Your task to perform on an android device: turn off smart reply in the gmail app Image 0: 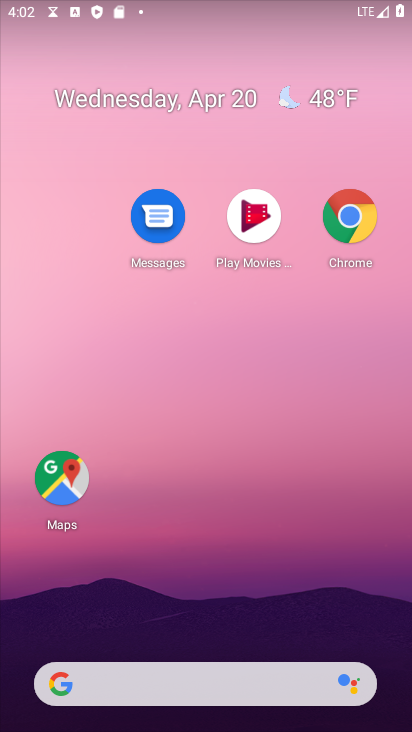
Step 0: drag from (302, 441) to (275, 248)
Your task to perform on an android device: turn off smart reply in the gmail app Image 1: 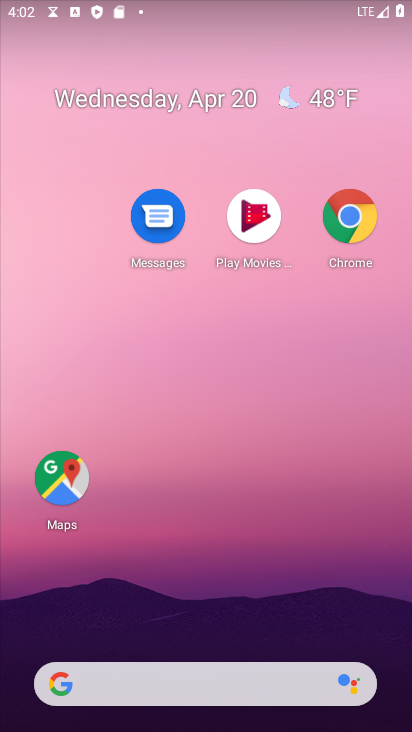
Step 1: drag from (299, 428) to (283, 52)
Your task to perform on an android device: turn off smart reply in the gmail app Image 2: 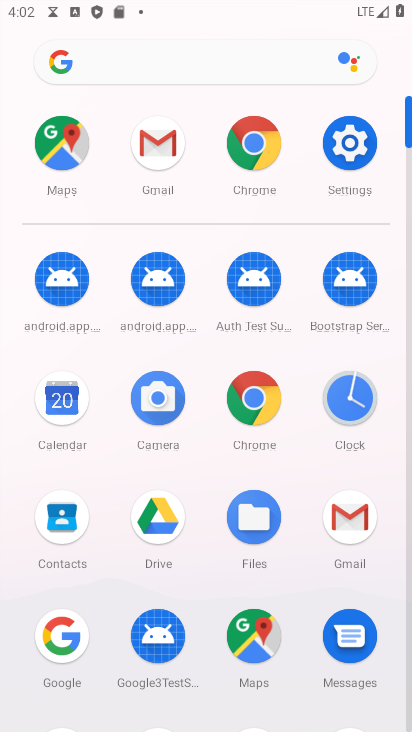
Step 2: click (360, 506)
Your task to perform on an android device: turn off smart reply in the gmail app Image 3: 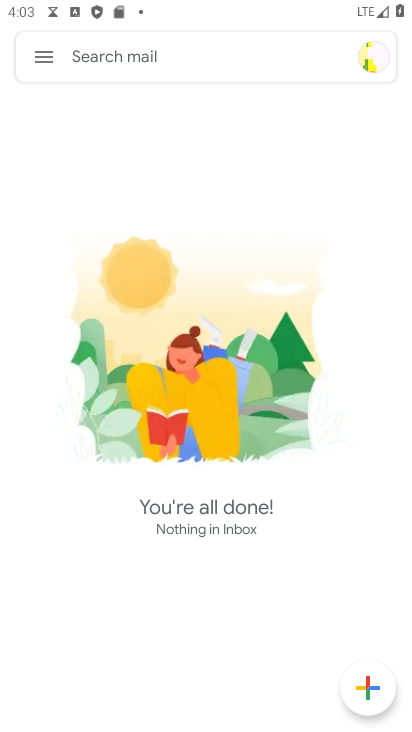
Step 3: click (26, 55)
Your task to perform on an android device: turn off smart reply in the gmail app Image 4: 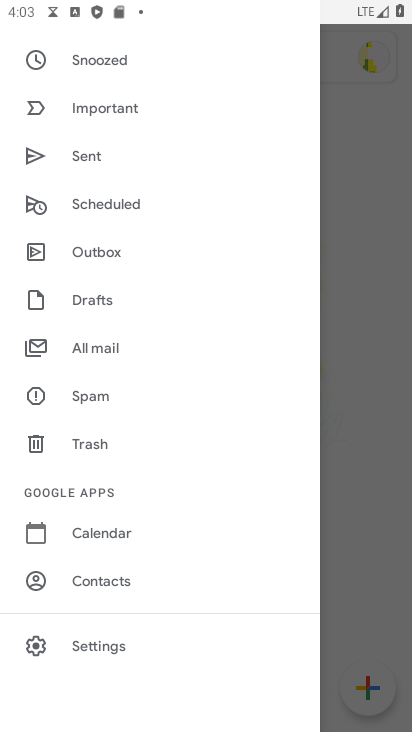
Step 4: click (120, 658)
Your task to perform on an android device: turn off smart reply in the gmail app Image 5: 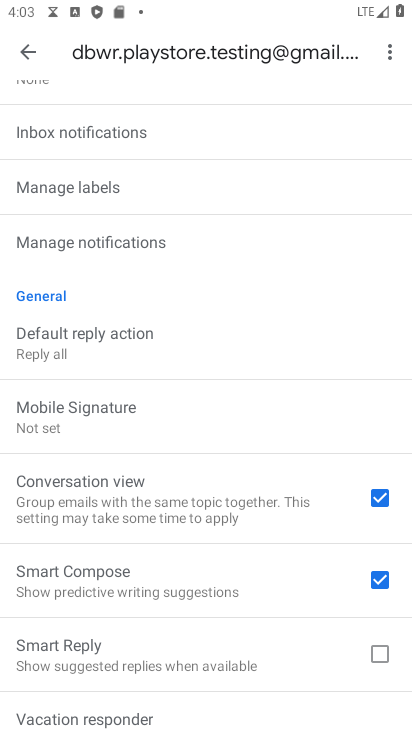
Step 5: task complete